Your task to perform on an android device: Open Youtube and go to "Your channel" Image 0: 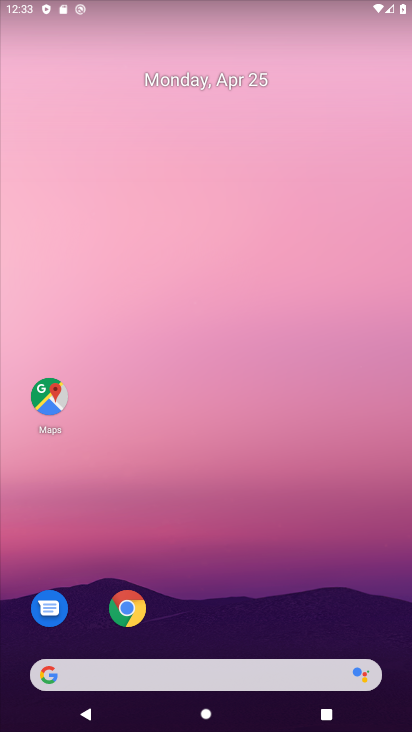
Step 0: drag from (264, 610) to (230, 70)
Your task to perform on an android device: Open Youtube and go to "Your channel" Image 1: 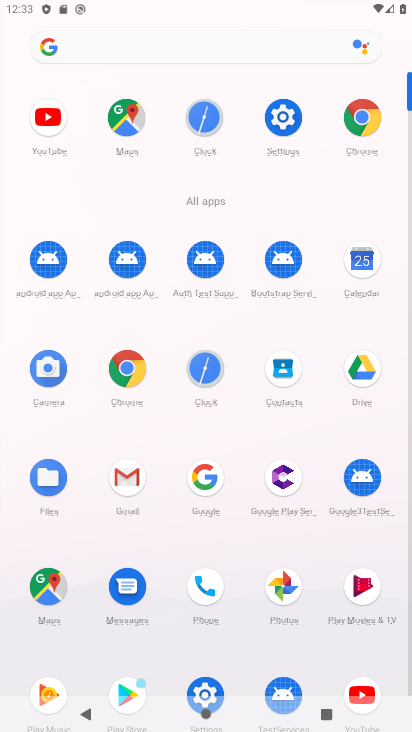
Step 1: click (56, 125)
Your task to perform on an android device: Open Youtube and go to "Your channel" Image 2: 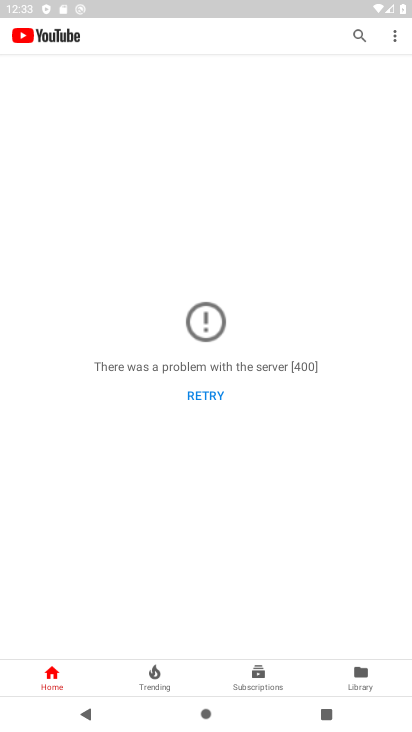
Step 2: task complete